Your task to perform on an android device: Open my contact list Image 0: 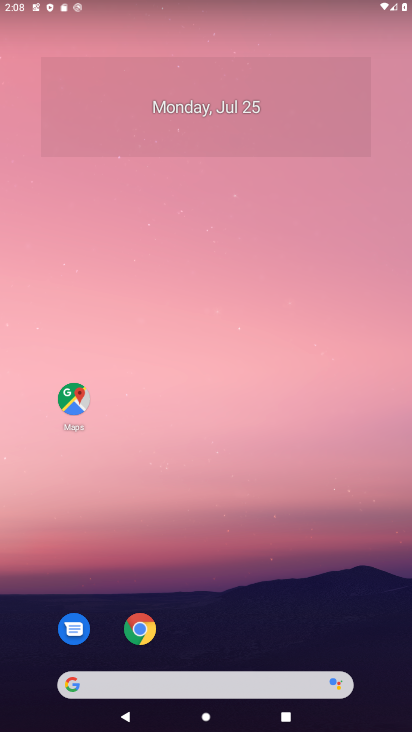
Step 0: drag from (31, 693) to (365, 31)
Your task to perform on an android device: Open my contact list Image 1: 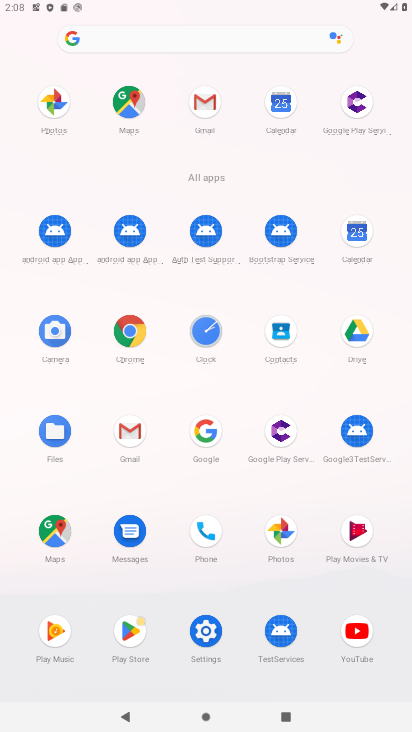
Step 1: click (286, 349)
Your task to perform on an android device: Open my contact list Image 2: 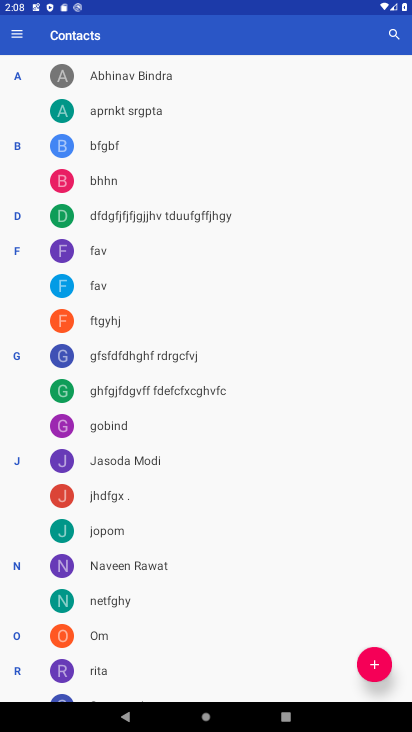
Step 2: click (371, 667)
Your task to perform on an android device: Open my contact list Image 3: 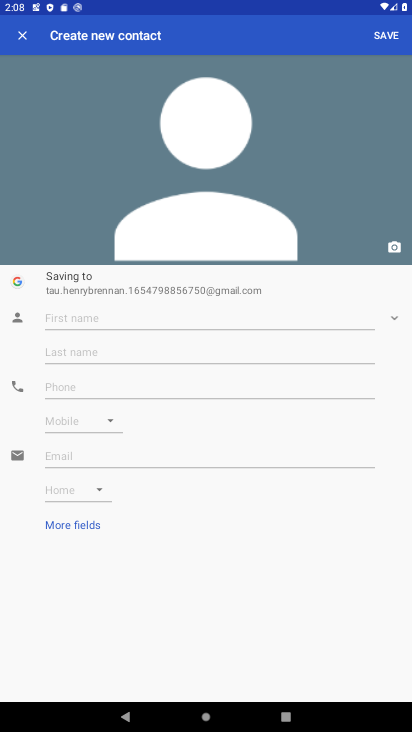
Step 3: task complete